Your task to perform on an android device: Open calendar and show me the third week of next month Image 0: 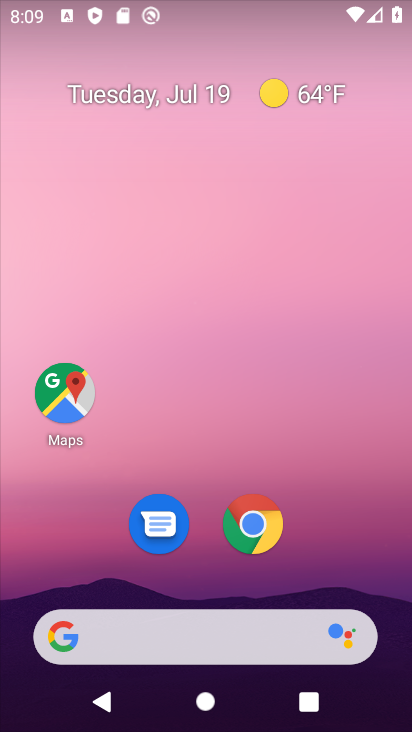
Step 0: drag from (312, 572) to (294, 35)
Your task to perform on an android device: Open calendar and show me the third week of next month Image 1: 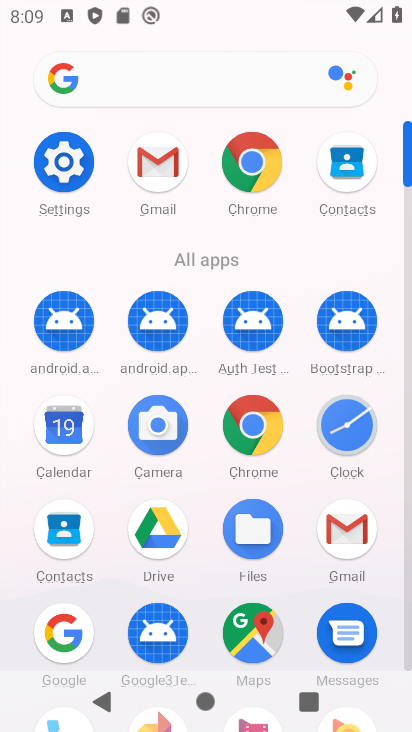
Step 1: click (62, 426)
Your task to perform on an android device: Open calendar and show me the third week of next month Image 2: 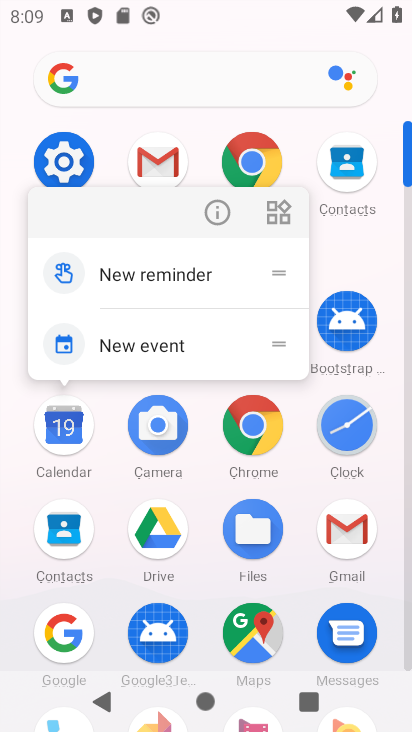
Step 2: click (62, 423)
Your task to perform on an android device: Open calendar and show me the third week of next month Image 3: 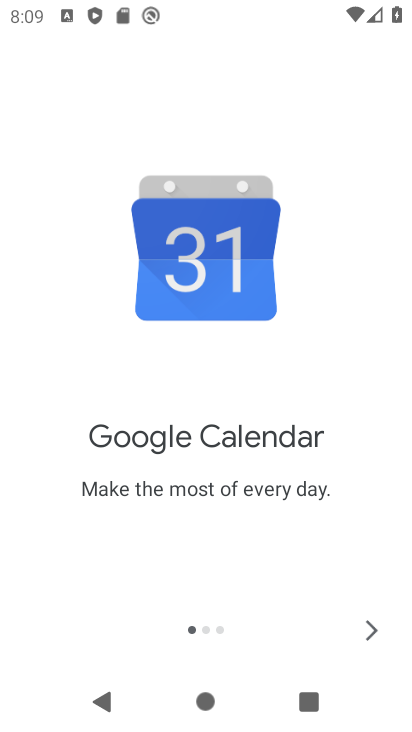
Step 3: click (365, 623)
Your task to perform on an android device: Open calendar and show me the third week of next month Image 4: 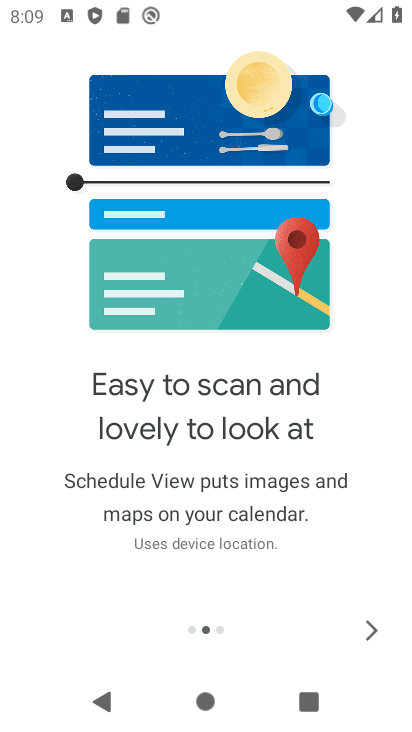
Step 4: click (376, 618)
Your task to perform on an android device: Open calendar and show me the third week of next month Image 5: 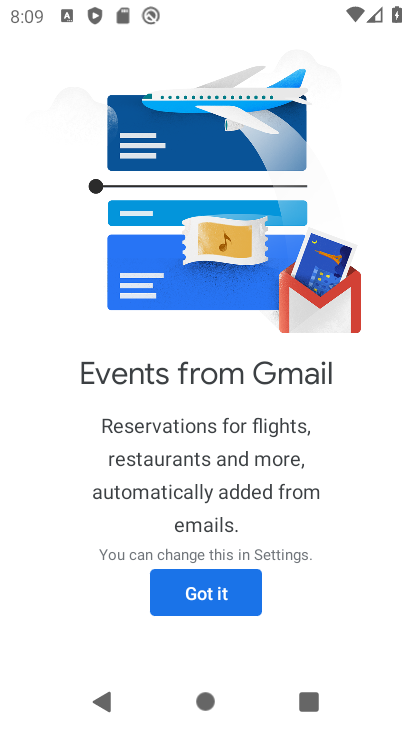
Step 5: click (242, 602)
Your task to perform on an android device: Open calendar and show me the third week of next month Image 6: 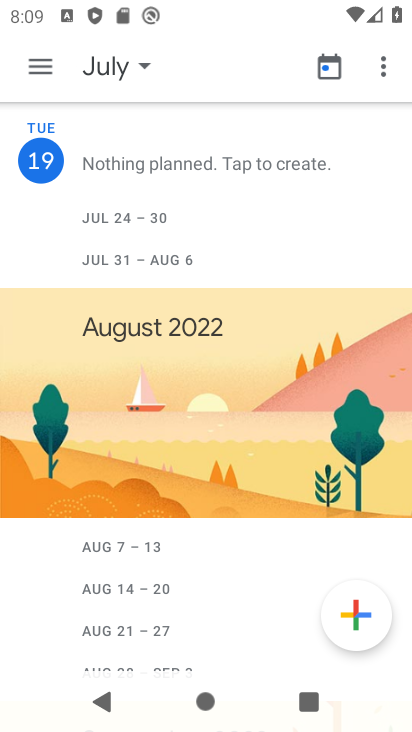
Step 6: click (40, 68)
Your task to perform on an android device: Open calendar and show me the third week of next month Image 7: 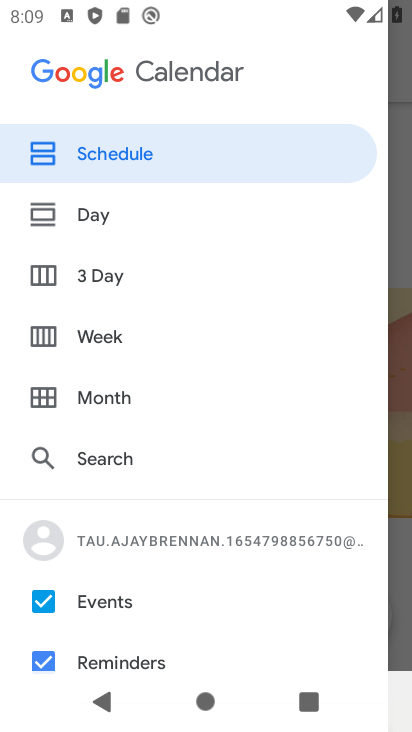
Step 7: click (43, 336)
Your task to perform on an android device: Open calendar and show me the third week of next month Image 8: 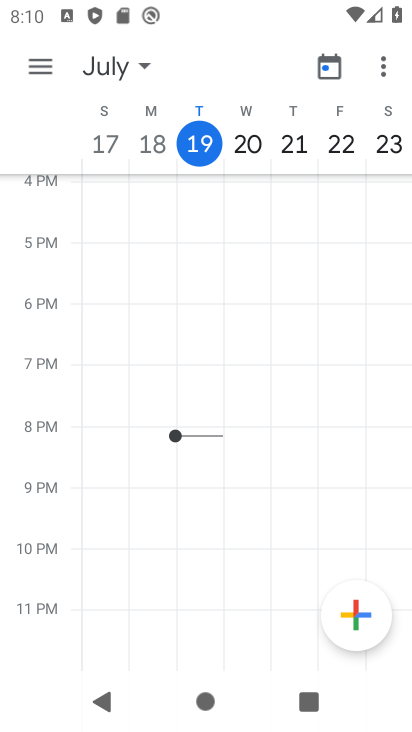
Step 8: task complete